Your task to perform on an android device: Check the weather Image 0: 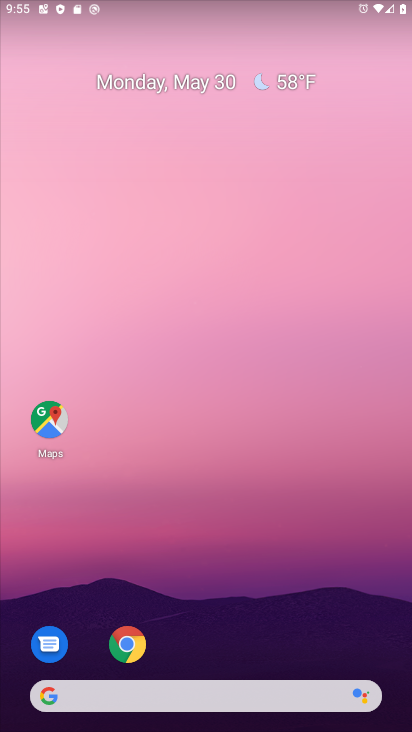
Step 0: click (289, 85)
Your task to perform on an android device: Check the weather Image 1: 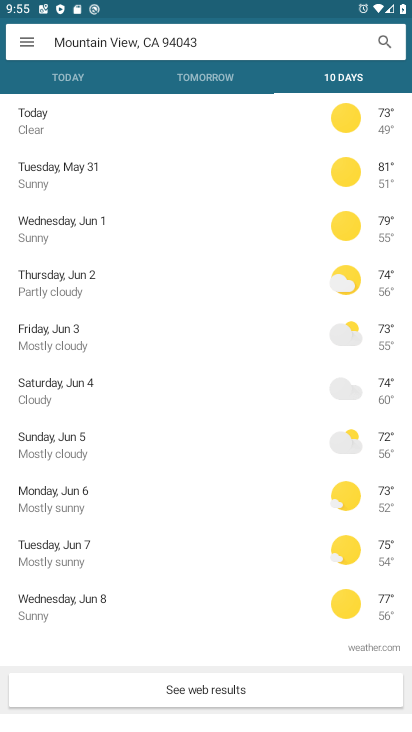
Step 1: click (62, 71)
Your task to perform on an android device: Check the weather Image 2: 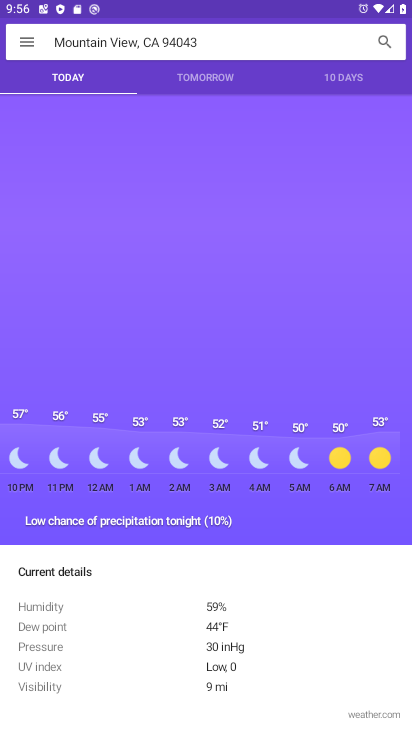
Step 2: task complete